Your task to perform on an android device: install app "Microsoft Authenticator" Image 0: 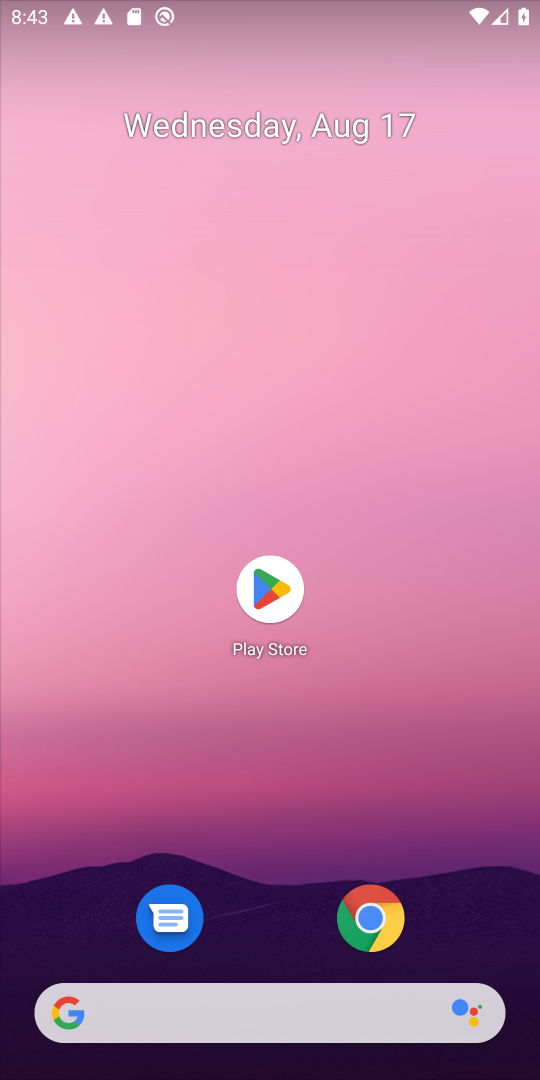
Step 0: click (269, 585)
Your task to perform on an android device: install app "Microsoft Authenticator" Image 1: 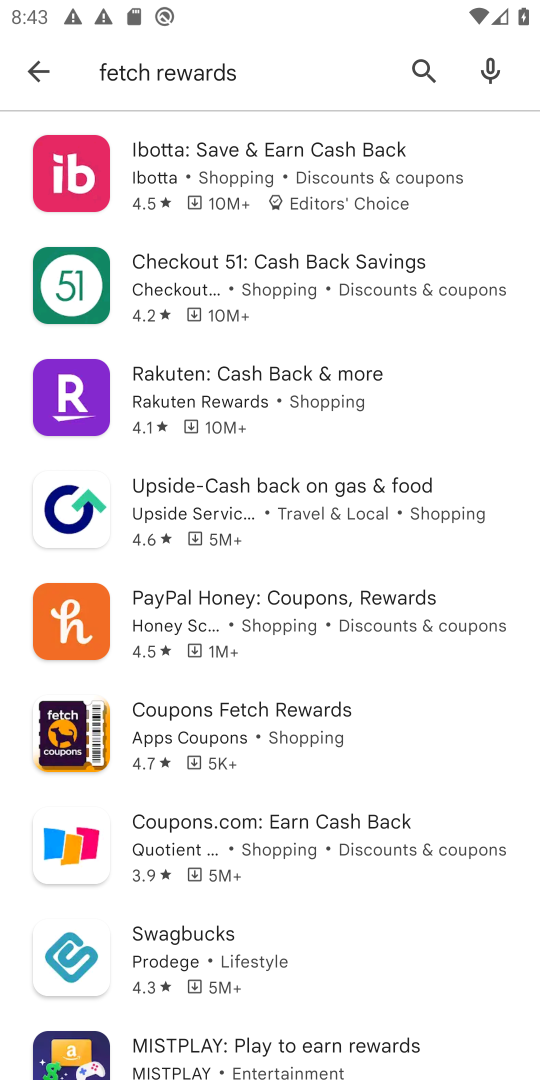
Step 1: click (418, 63)
Your task to perform on an android device: install app "Microsoft Authenticator" Image 2: 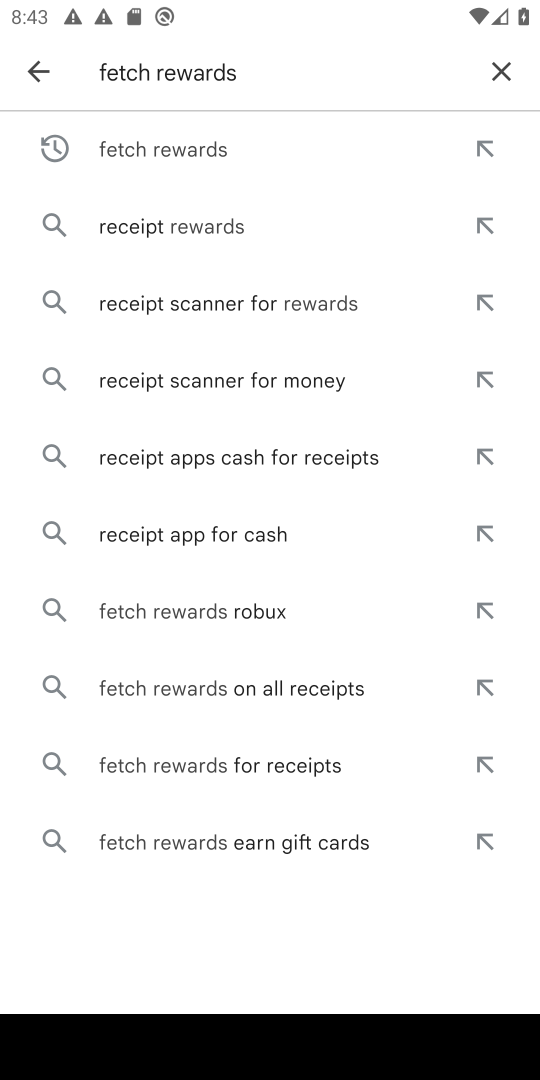
Step 2: click (507, 53)
Your task to perform on an android device: install app "Microsoft Authenticator" Image 3: 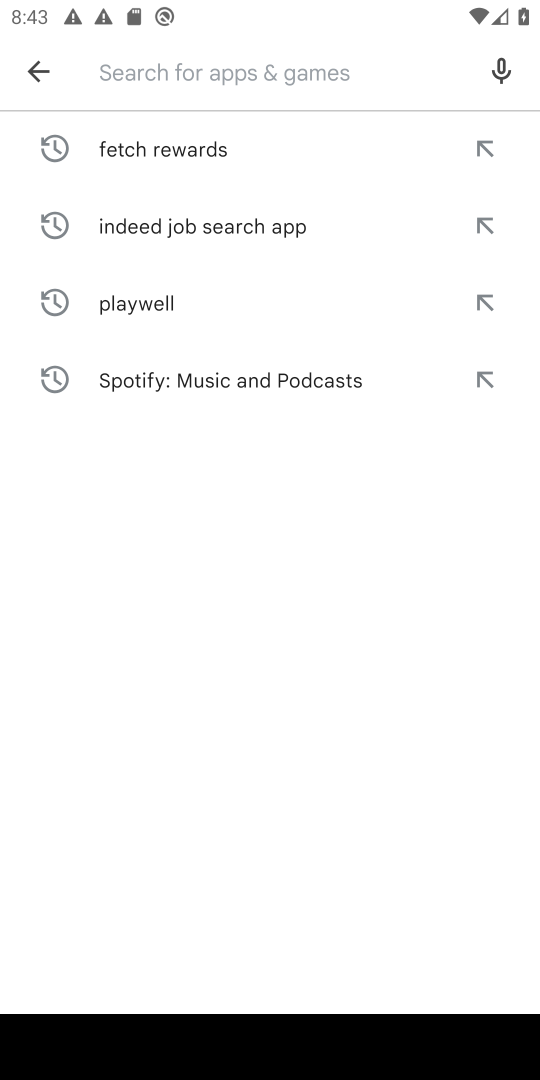
Step 3: type "Microsoft Authenticator"
Your task to perform on an android device: install app "Microsoft Authenticator" Image 4: 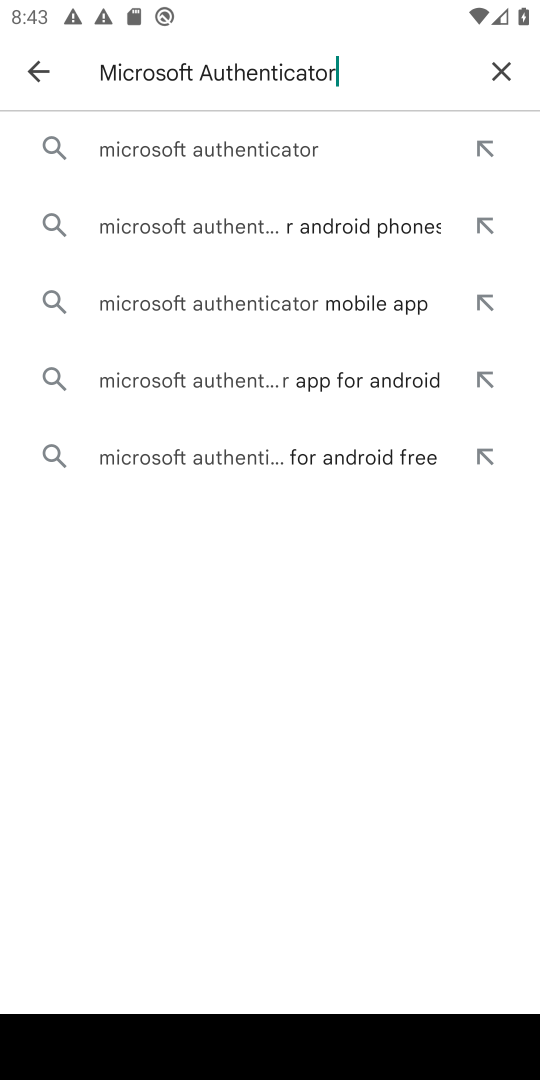
Step 4: click (221, 145)
Your task to perform on an android device: install app "Microsoft Authenticator" Image 5: 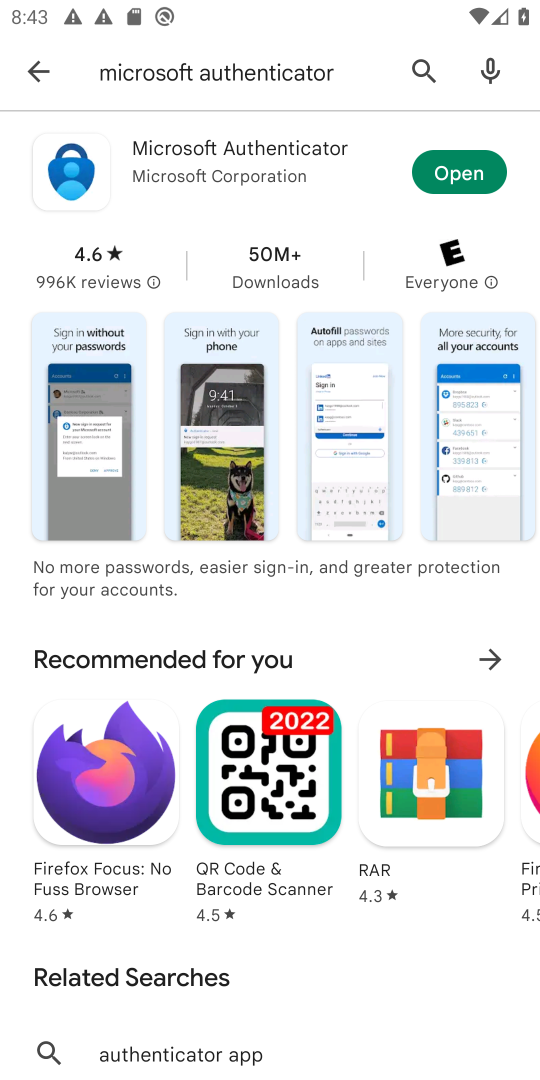
Step 5: task complete